Your task to perform on an android device: Clear the cart on amazon.com. Search for razer naga on amazon.com, select the first entry, add it to the cart, then select checkout. Image 0: 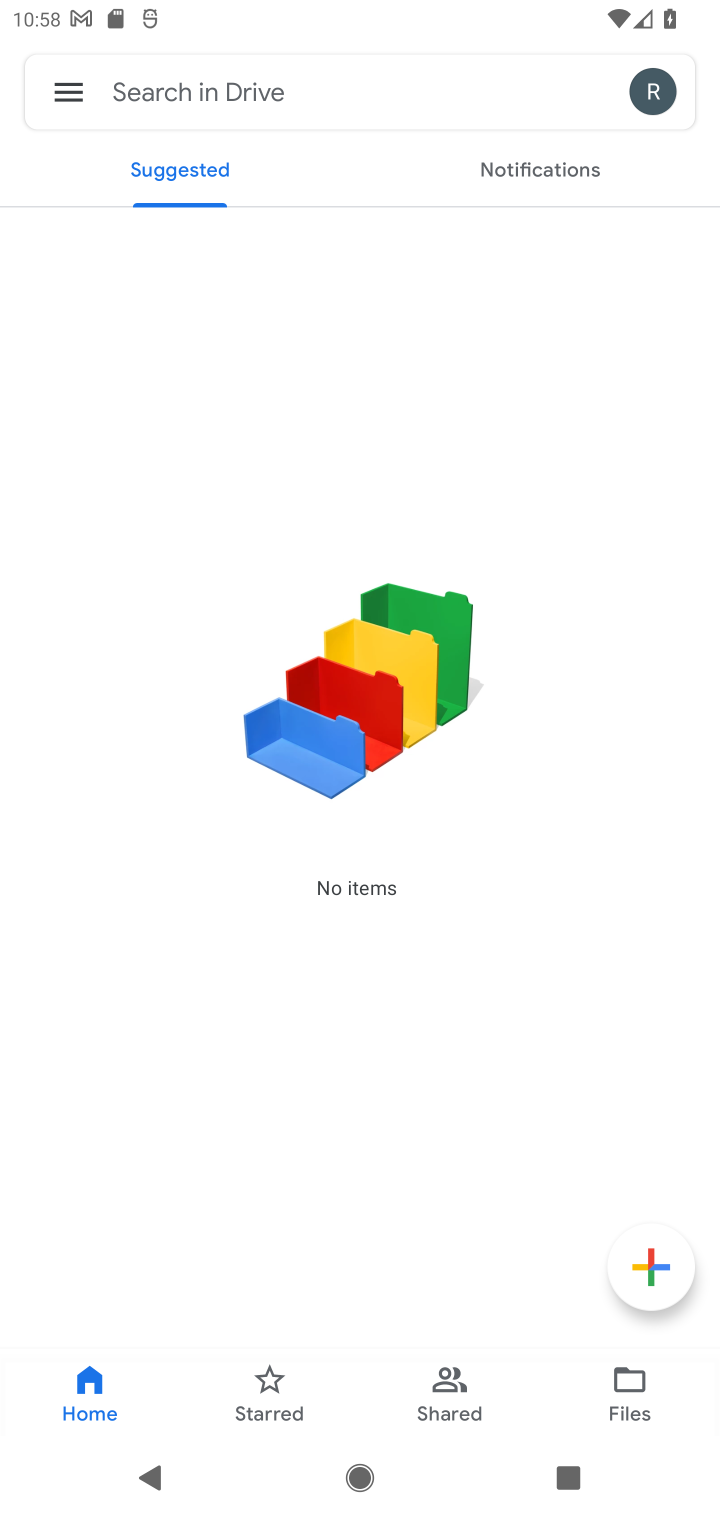
Step 0: press home button
Your task to perform on an android device: Clear the cart on amazon.com. Search for razer naga on amazon.com, select the first entry, add it to the cart, then select checkout. Image 1: 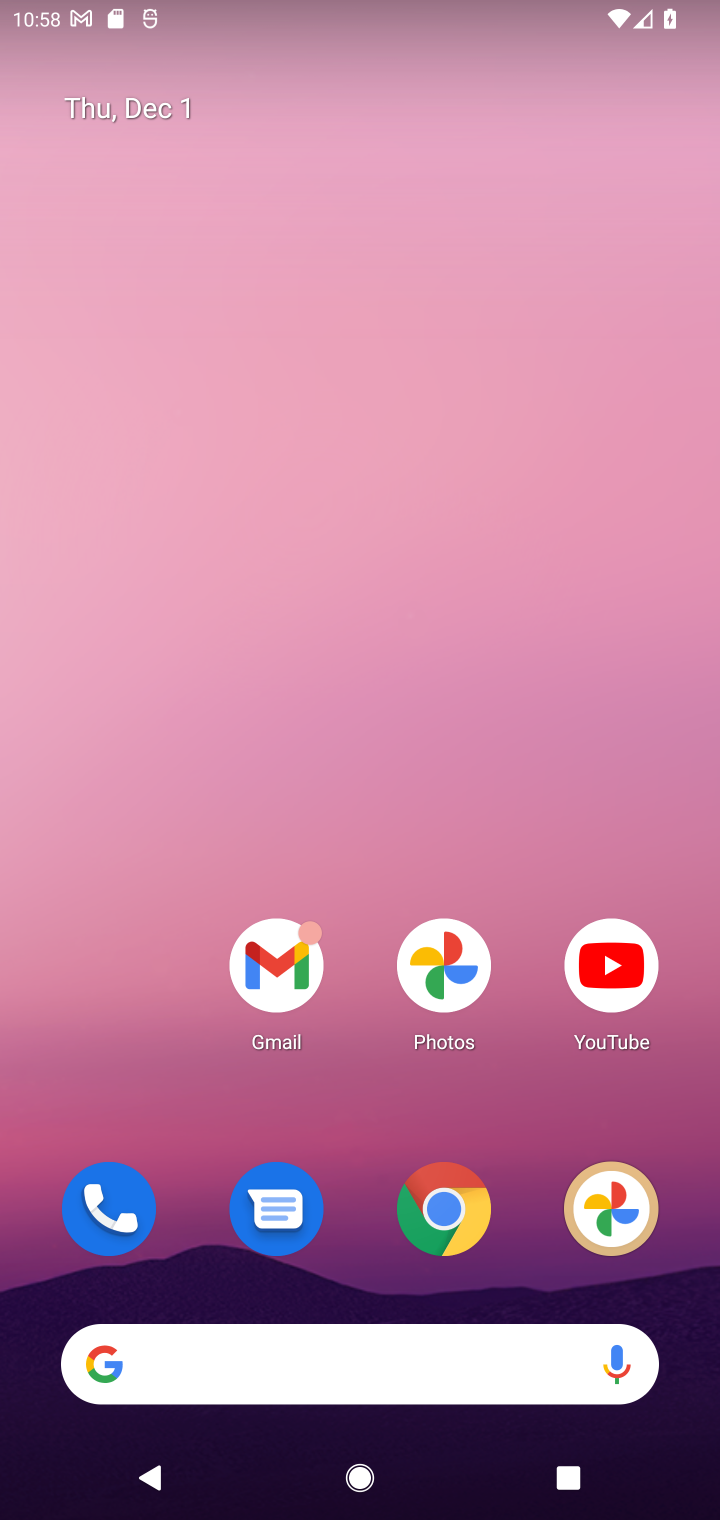
Step 1: click (426, 1211)
Your task to perform on an android device: Clear the cart on amazon.com. Search for razer naga on amazon.com, select the first entry, add it to the cart, then select checkout. Image 2: 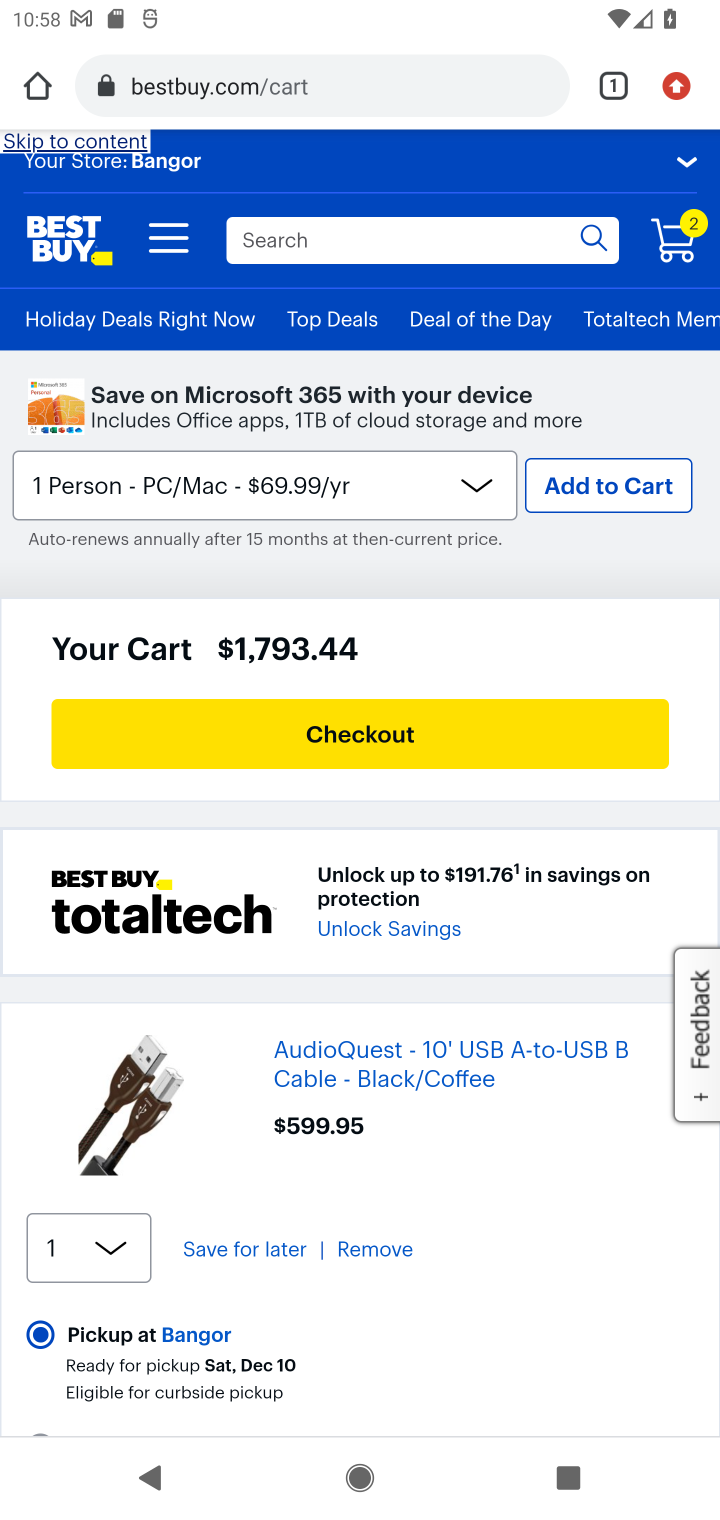
Step 2: click (370, 66)
Your task to perform on an android device: Clear the cart on amazon.com. Search for razer naga on amazon.com, select the first entry, add it to the cart, then select checkout. Image 3: 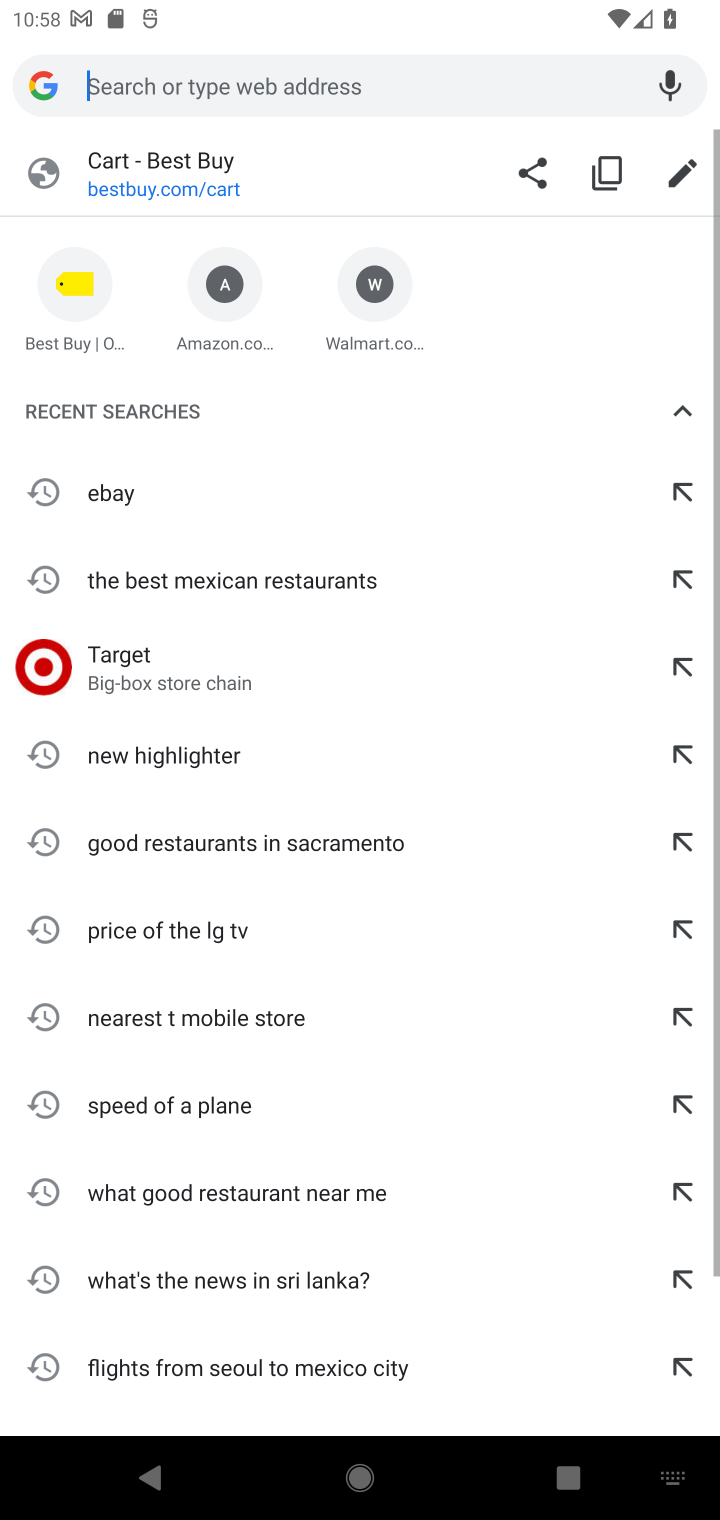
Step 3: click (213, 288)
Your task to perform on an android device: Clear the cart on amazon.com. Search for razer naga on amazon.com, select the first entry, add it to the cart, then select checkout. Image 4: 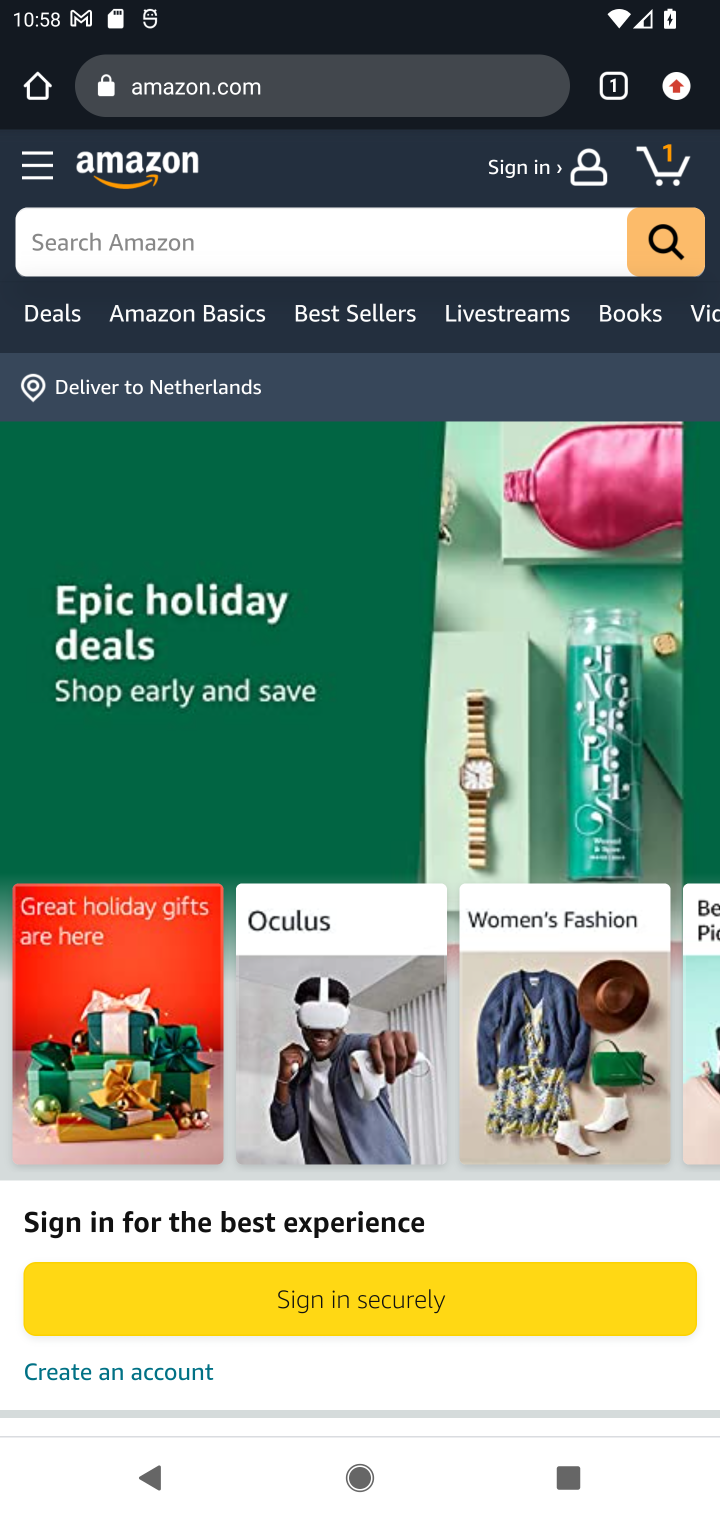
Step 4: click (663, 167)
Your task to perform on an android device: Clear the cart on amazon.com. Search for razer naga on amazon.com, select the first entry, add it to the cart, then select checkout. Image 5: 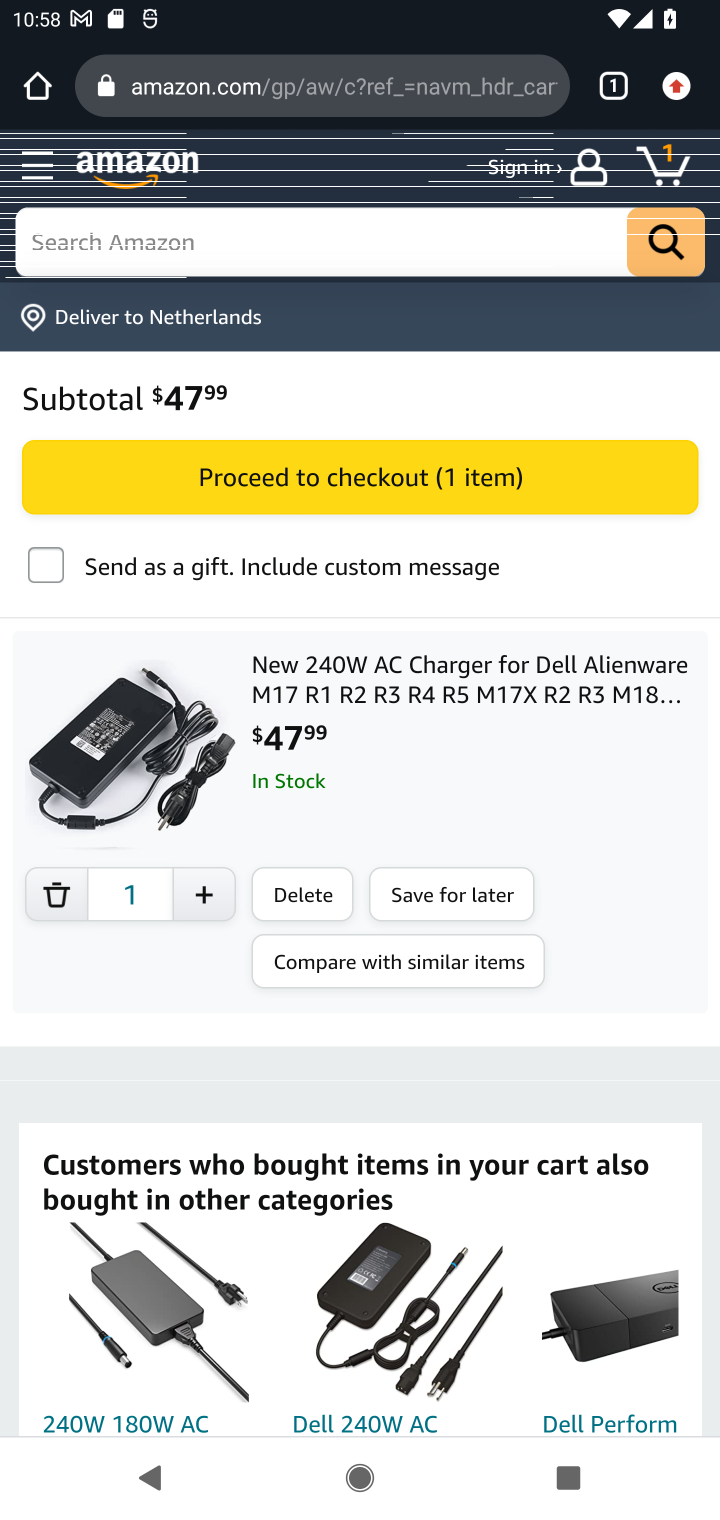
Step 5: click (663, 169)
Your task to perform on an android device: Clear the cart on amazon.com. Search for razer naga on amazon.com, select the first entry, add it to the cart, then select checkout. Image 6: 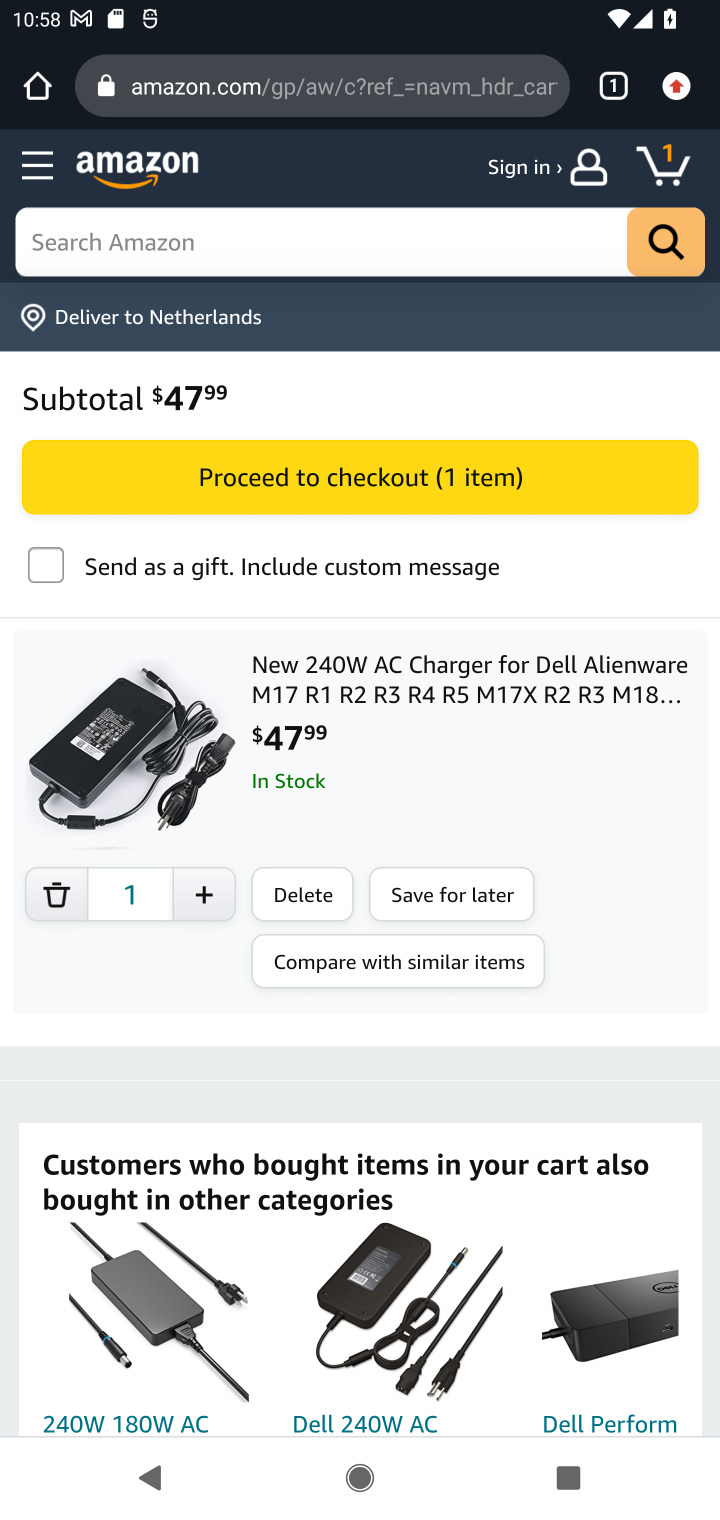
Step 6: click (299, 899)
Your task to perform on an android device: Clear the cart on amazon.com. Search for razer naga on amazon.com, select the first entry, add it to the cart, then select checkout. Image 7: 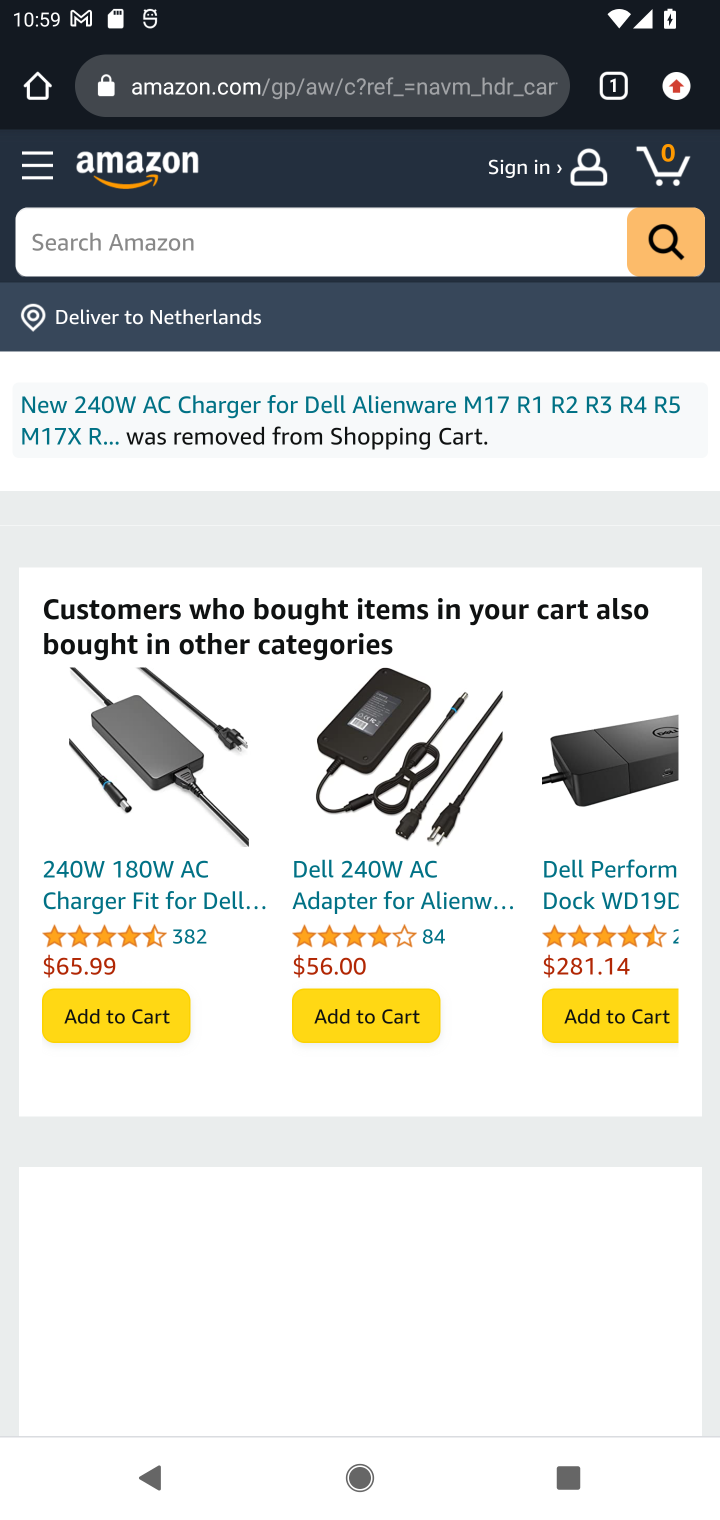
Step 7: click (296, 238)
Your task to perform on an android device: Clear the cart on amazon.com. Search for razer naga on amazon.com, select the first entry, add it to the cart, then select checkout. Image 8: 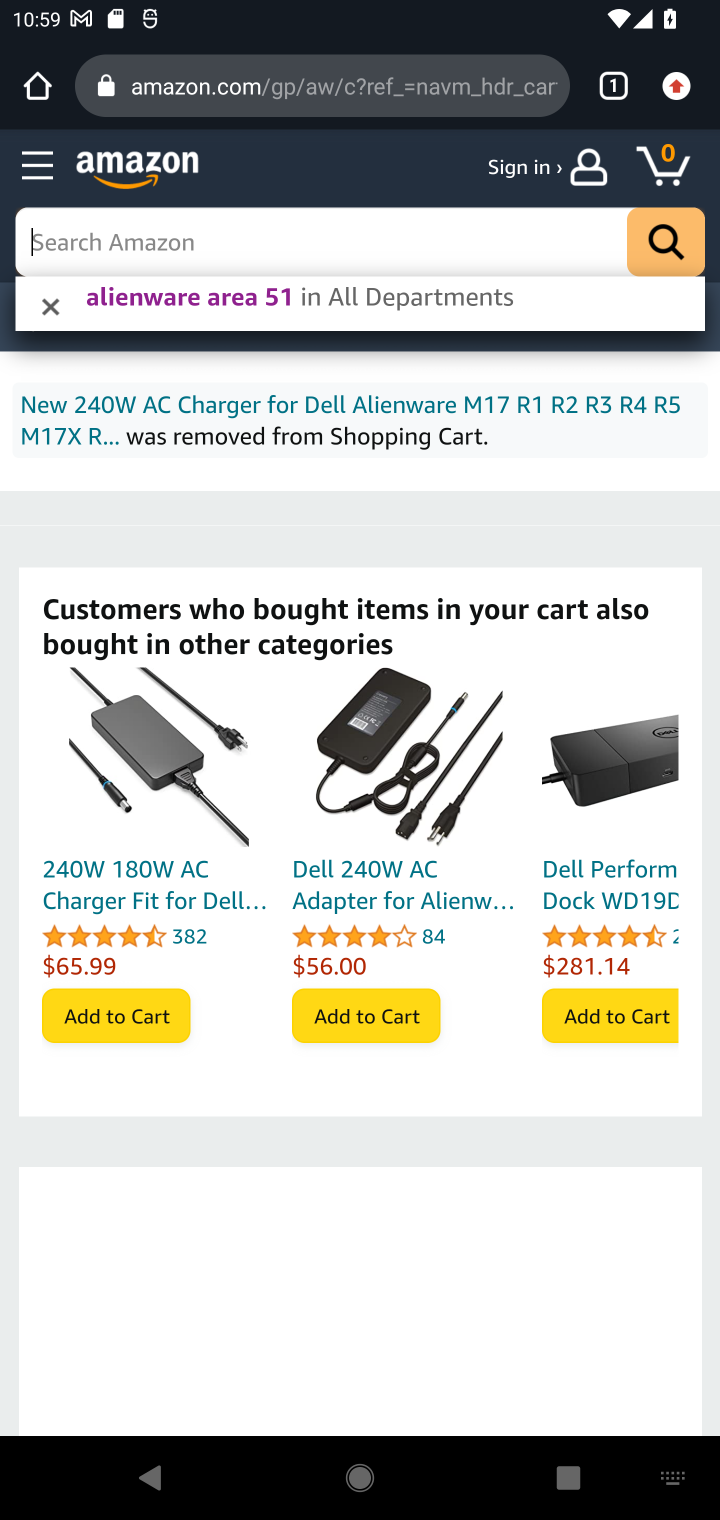
Step 8: type "razer naga"
Your task to perform on an android device: Clear the cart on amazon.com. Search for razer naga on amazon.com, select the first entry, add it to the cart, then select checkout. Image 9: 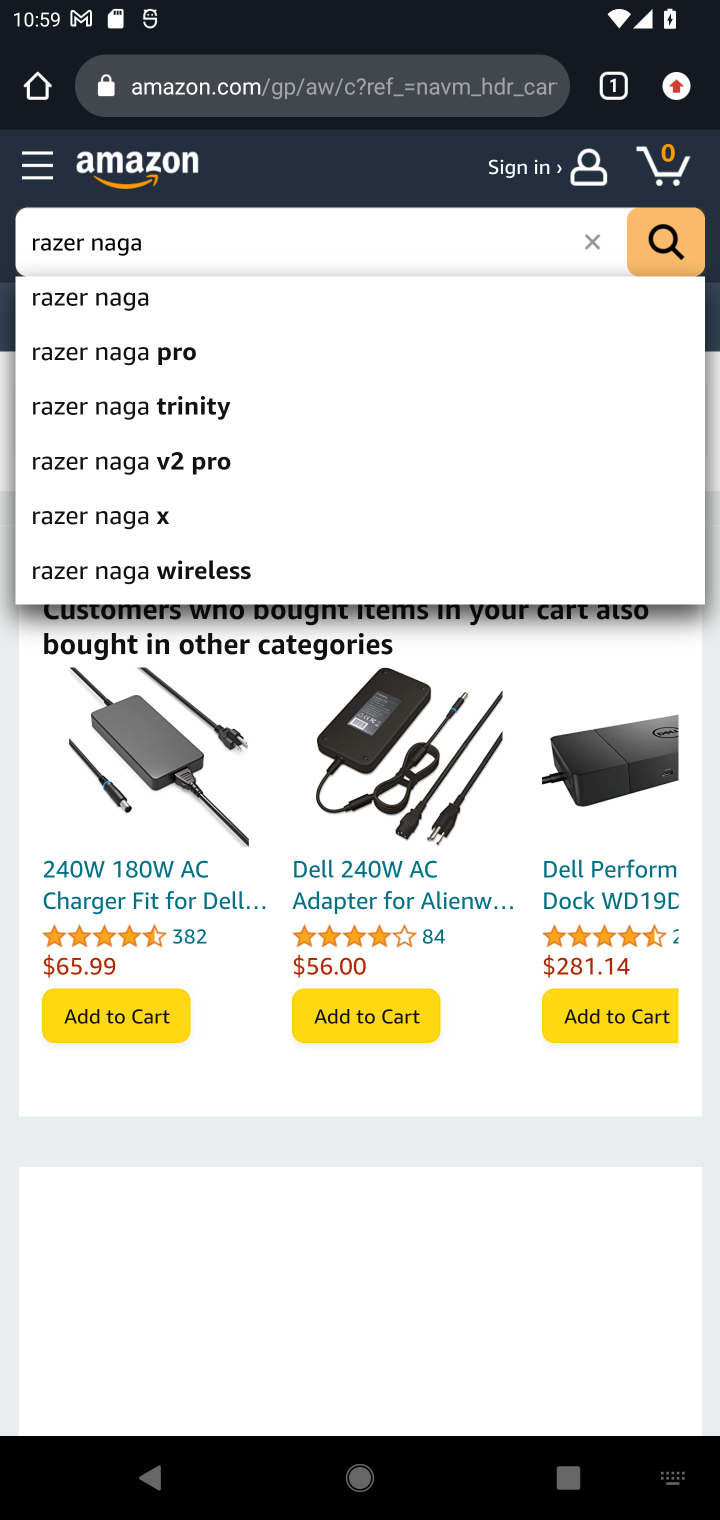
Step 9: click (128, 305)
Your task to perform on an android device: Clear the cart on amazon.com. Search for razer naga on amazon.com, select the first entry, add it to the cart, then select checkout. Image 10: 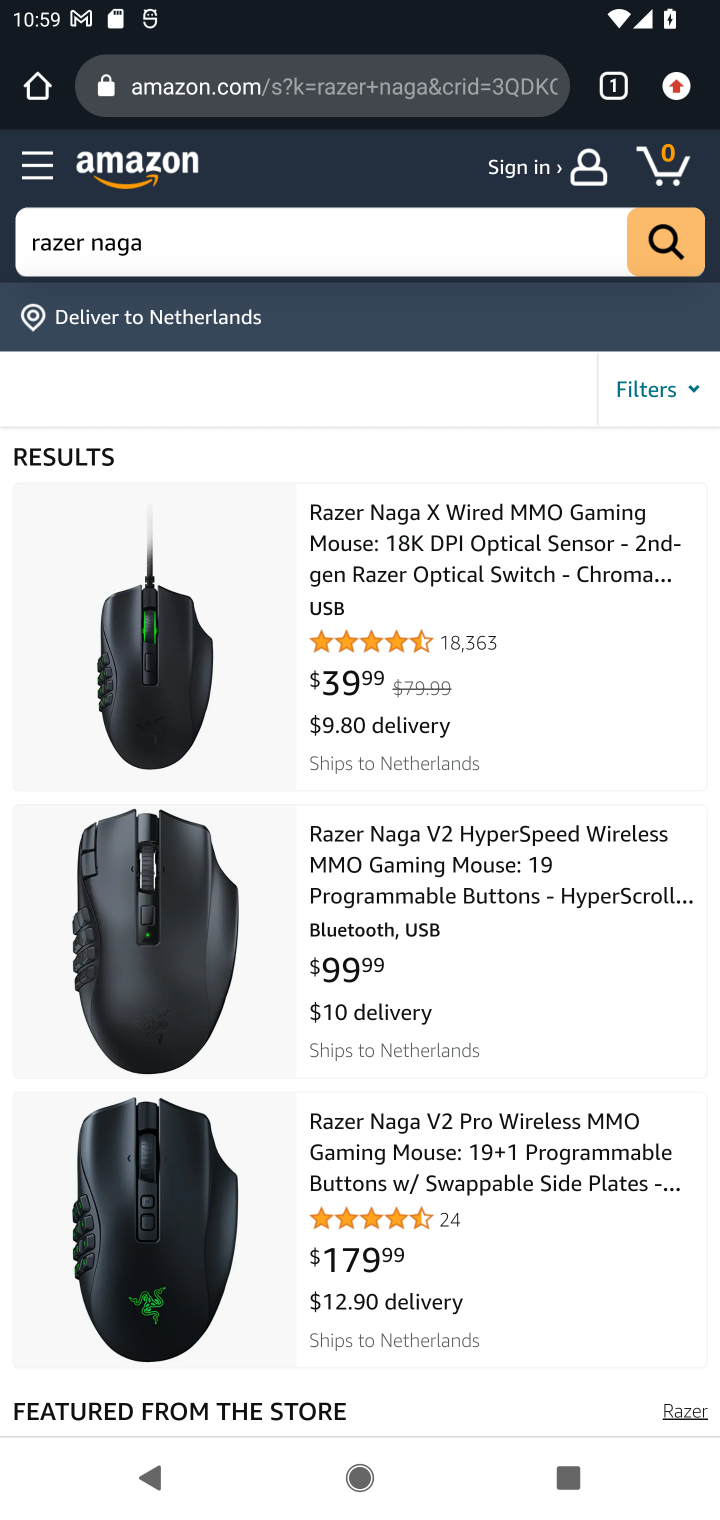
Step 10: click (430, 571)
Your task to perform on an android device: Clear the cart on amazon.com. Search for razer naga on amazon.com, select the first entry, add it to the cart, then select checkout. Image 11: 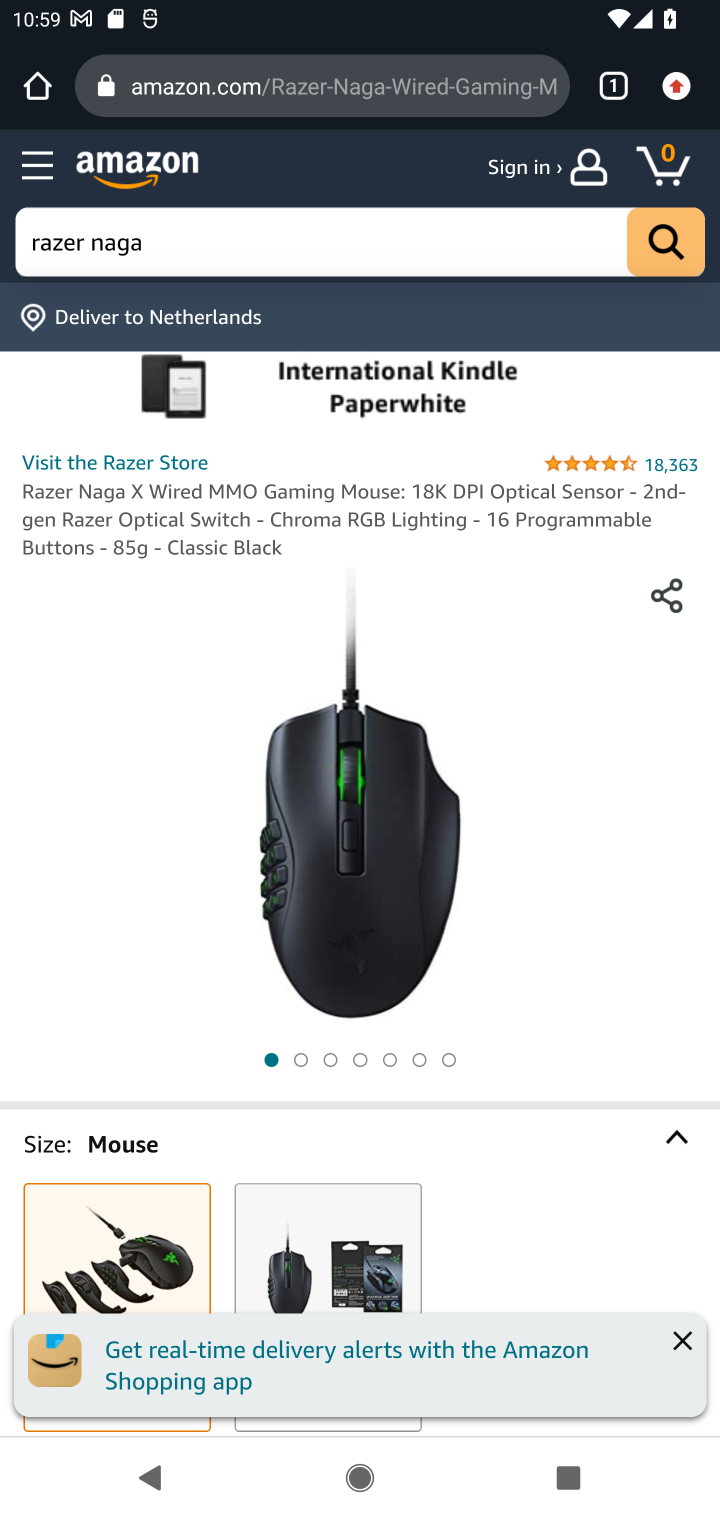
Step 11: drag from (442, 1201) to (458, 457)
Your task to perform on an android device: Clear the cart on amazon.com. Search for razer naga on amazon.com, select the first entry, add it to the cart, then select checkout. Image 12: 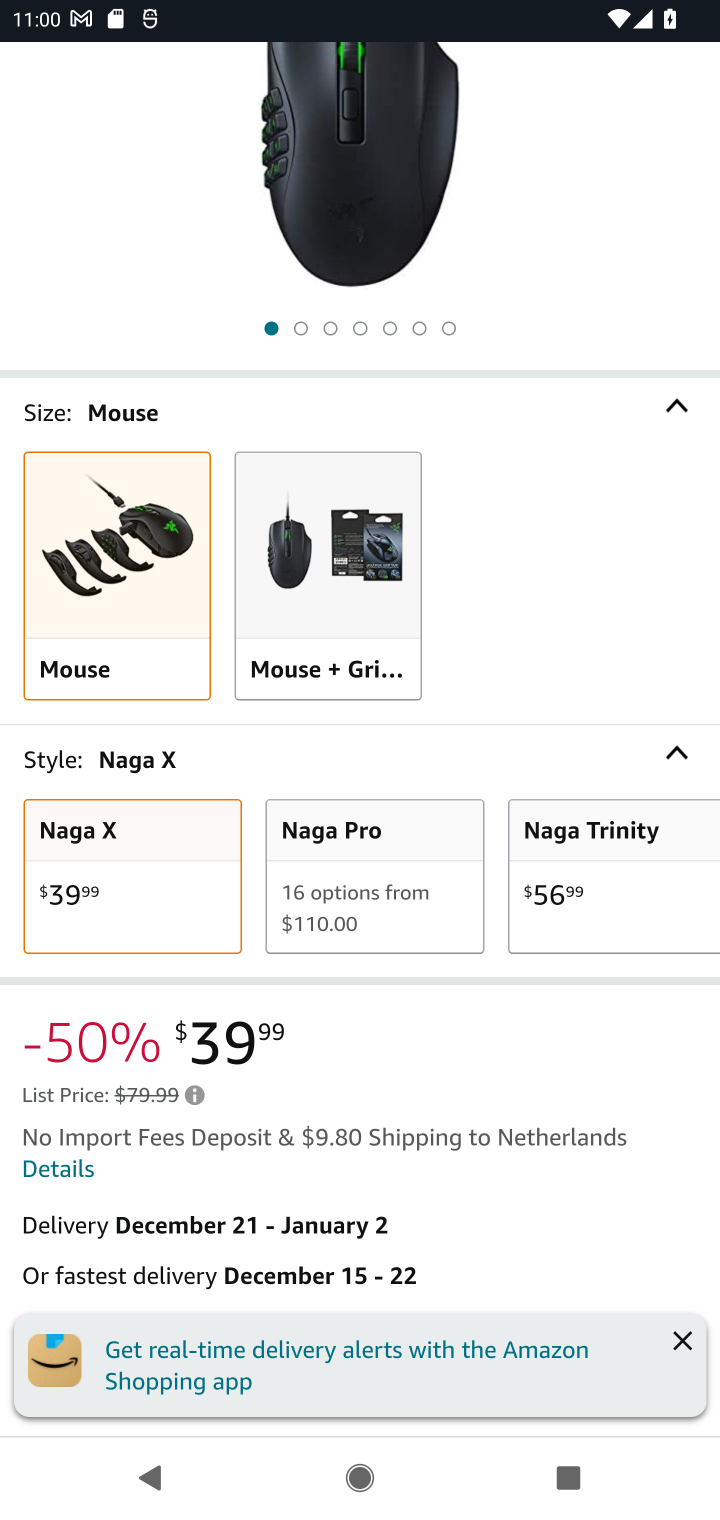
Step 12: drag from (430, 1100) to (456, 379)
Your task to perform on an android device: Clear the cart on amazon.com. Search for razer naga on amazon.com, select the first entry, add it to the cart, then select checkout. Image 13: 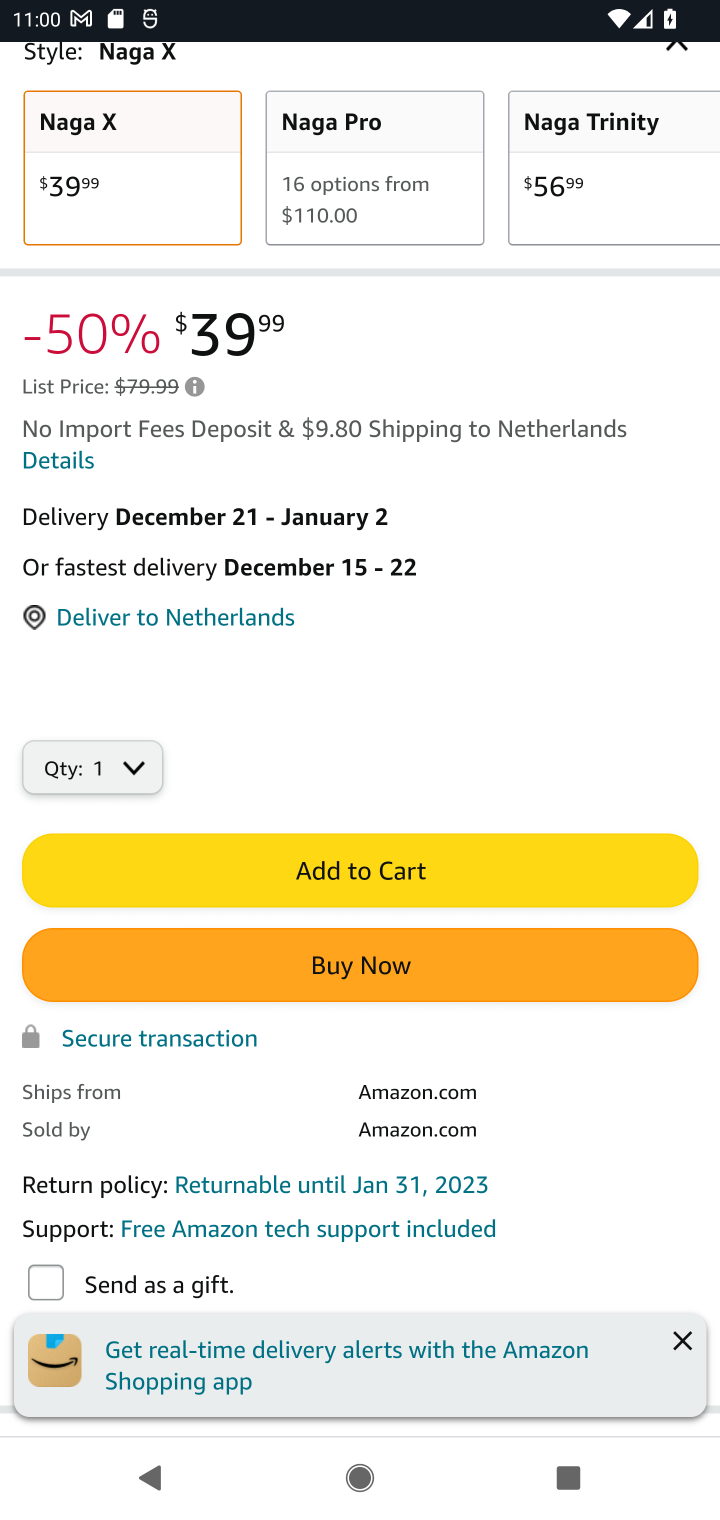
Step 13: click (371, 864)
Your task to perform on an android device: Clear the cart on amazon.com. Search for razer naga on amazon.com, select the first entry, add it to the cart, then select checkout. Image 14: 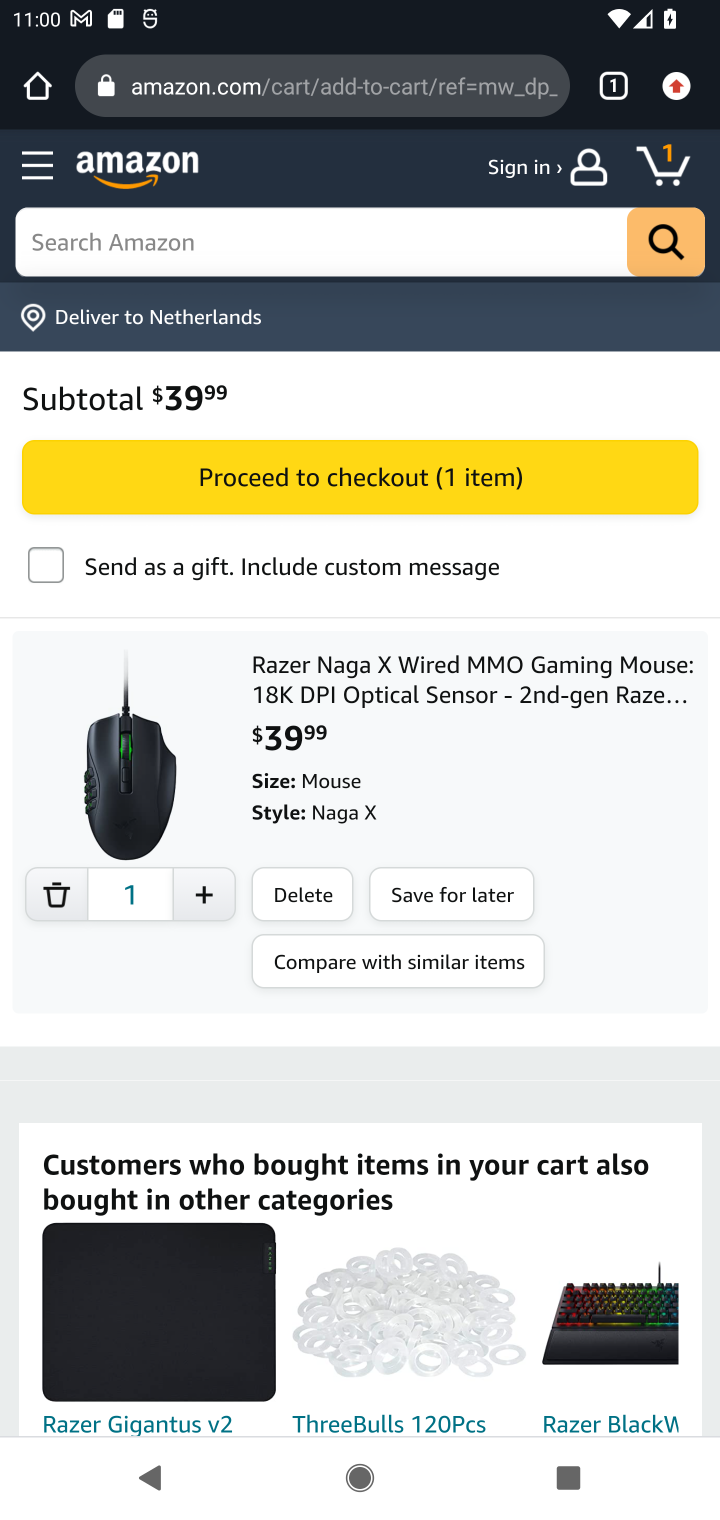
Step 14: click (349, 474)
Your task to perform on an android device: Clear the cart on amazon.com. Search for razer naga on amazon.com, select the first entry, add it to the cart, then select checkout. Image 15: 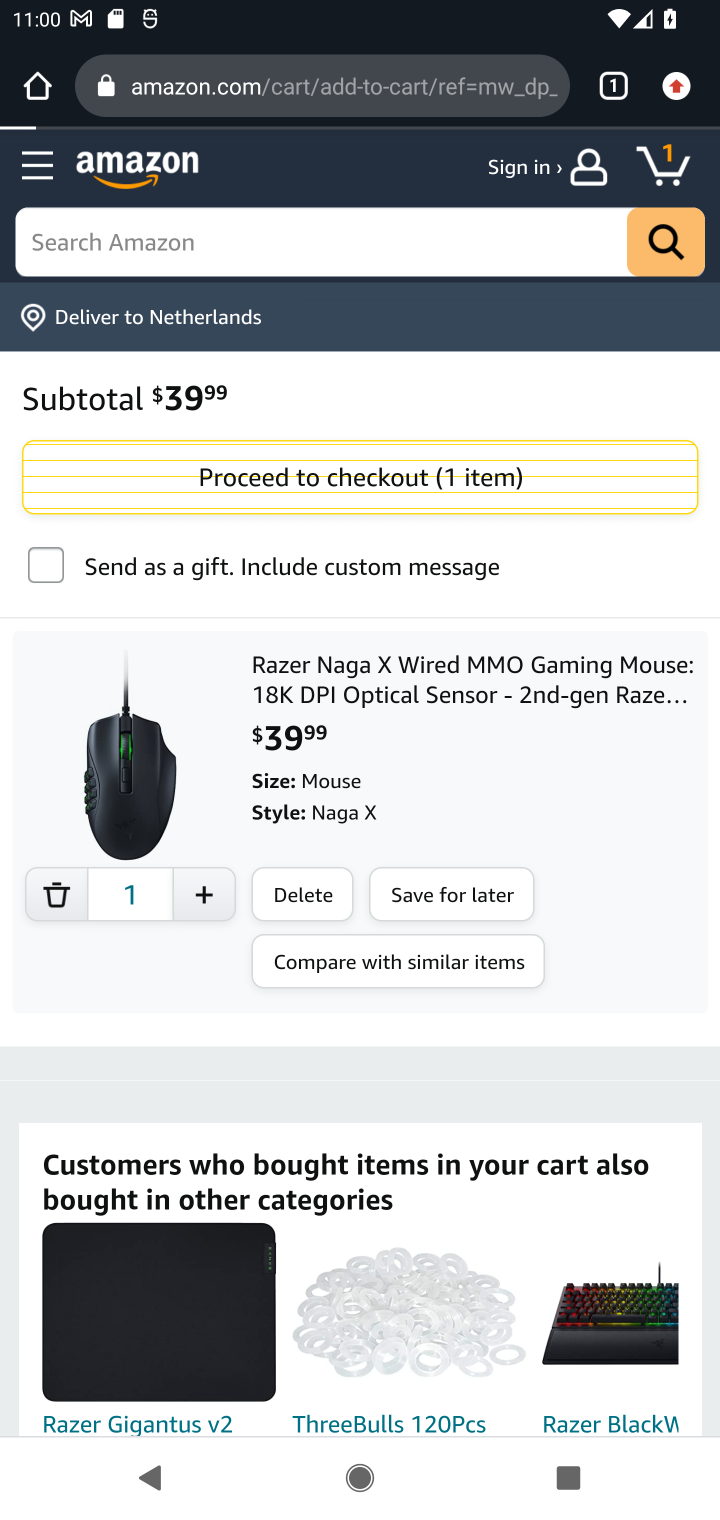
Step 15: task complete